Your task to perform on an android device: Go to location settings Image 0: 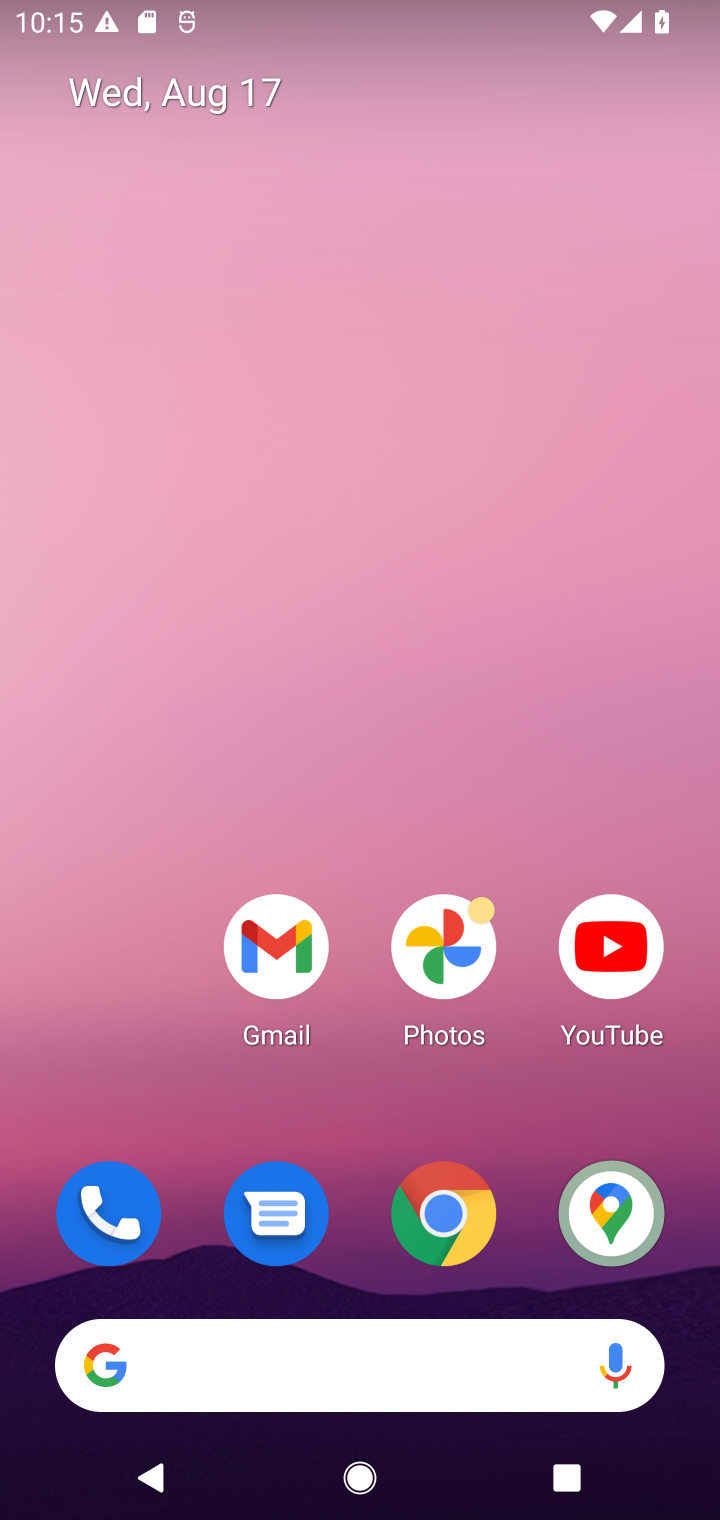
Step 0: drag from (501, 1004) to (326, 11)
Your task to perform on an android device: Go to location settings Image 1: 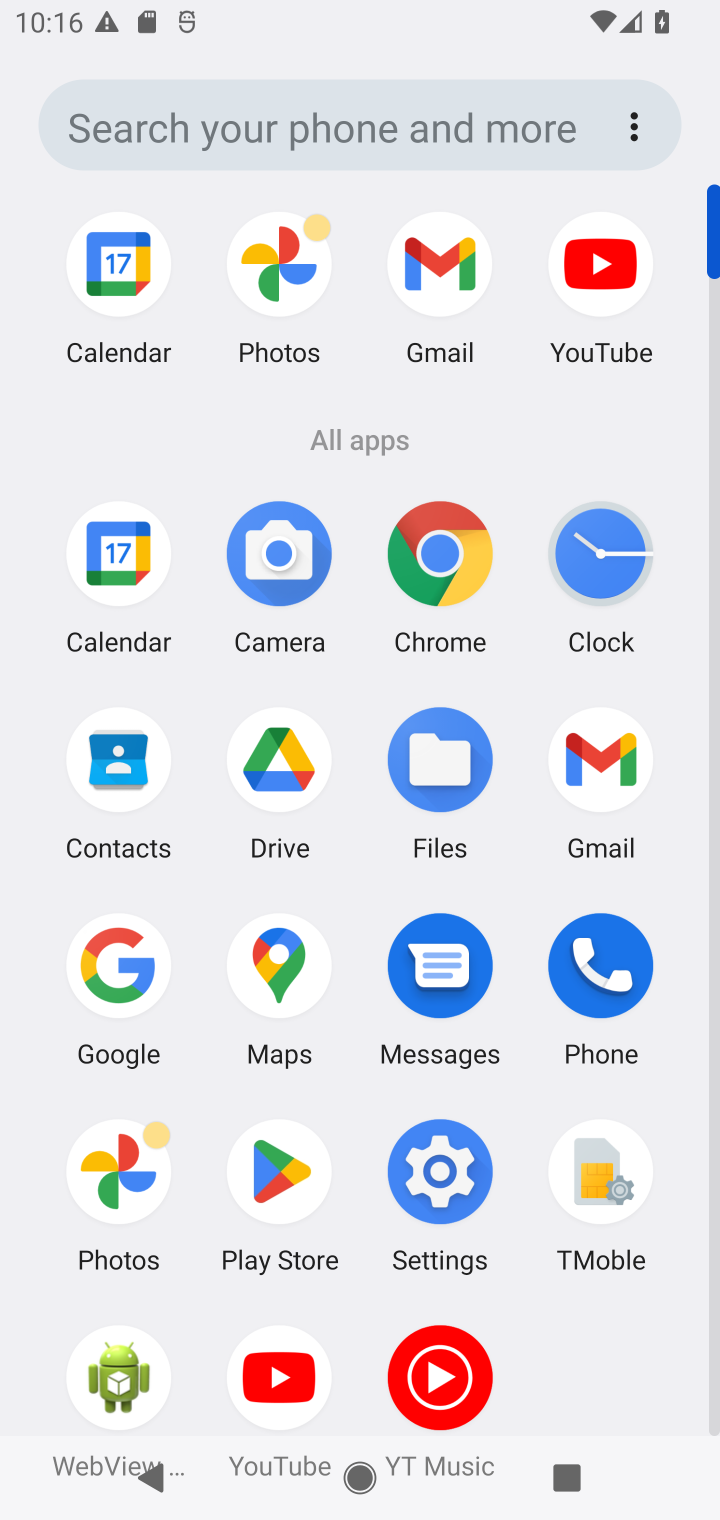
Step 1: click (402, 1150)
Your task to perform on an android device: Go to location settings Image 2: 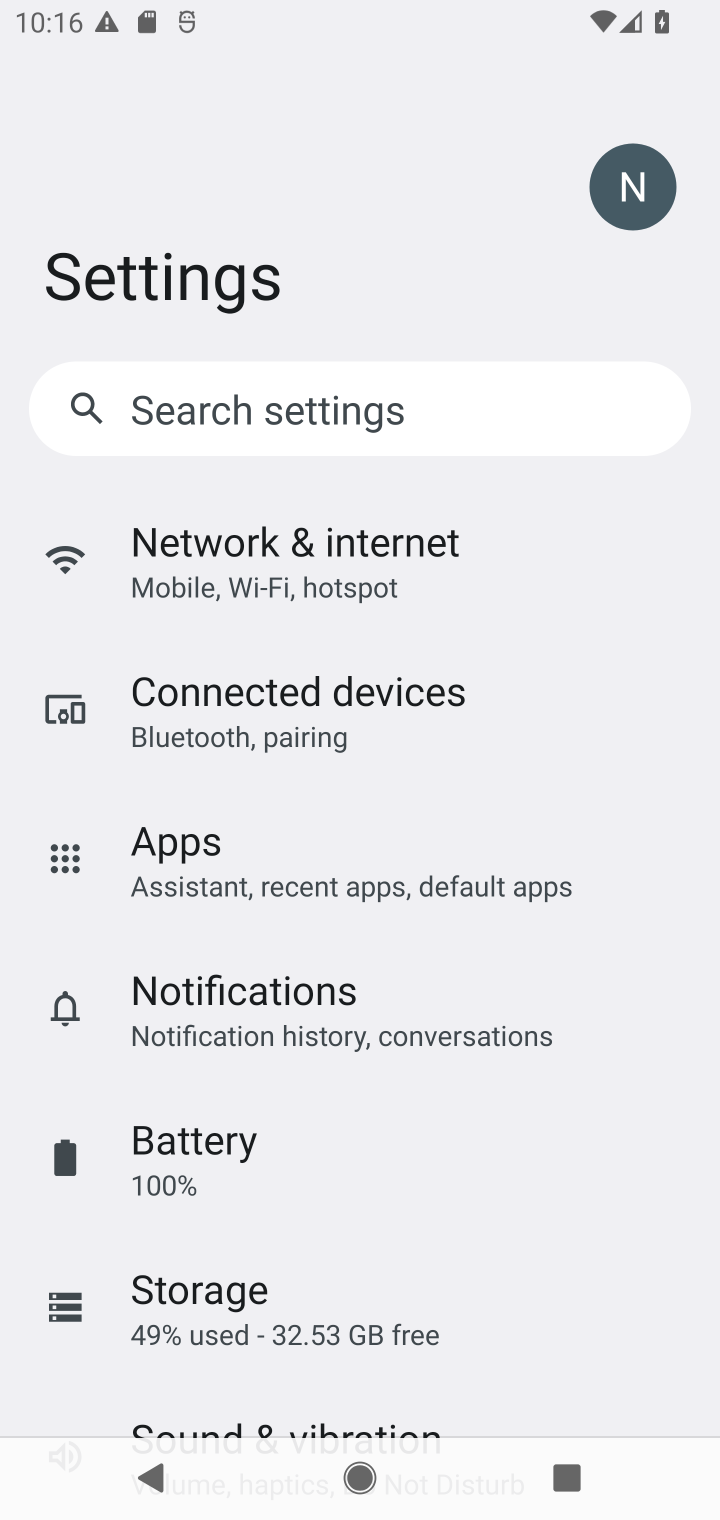
Step 2: drag from (284, 1269) to (219, 183)
Your task to perform on an android device: Go to location settings Image 3: 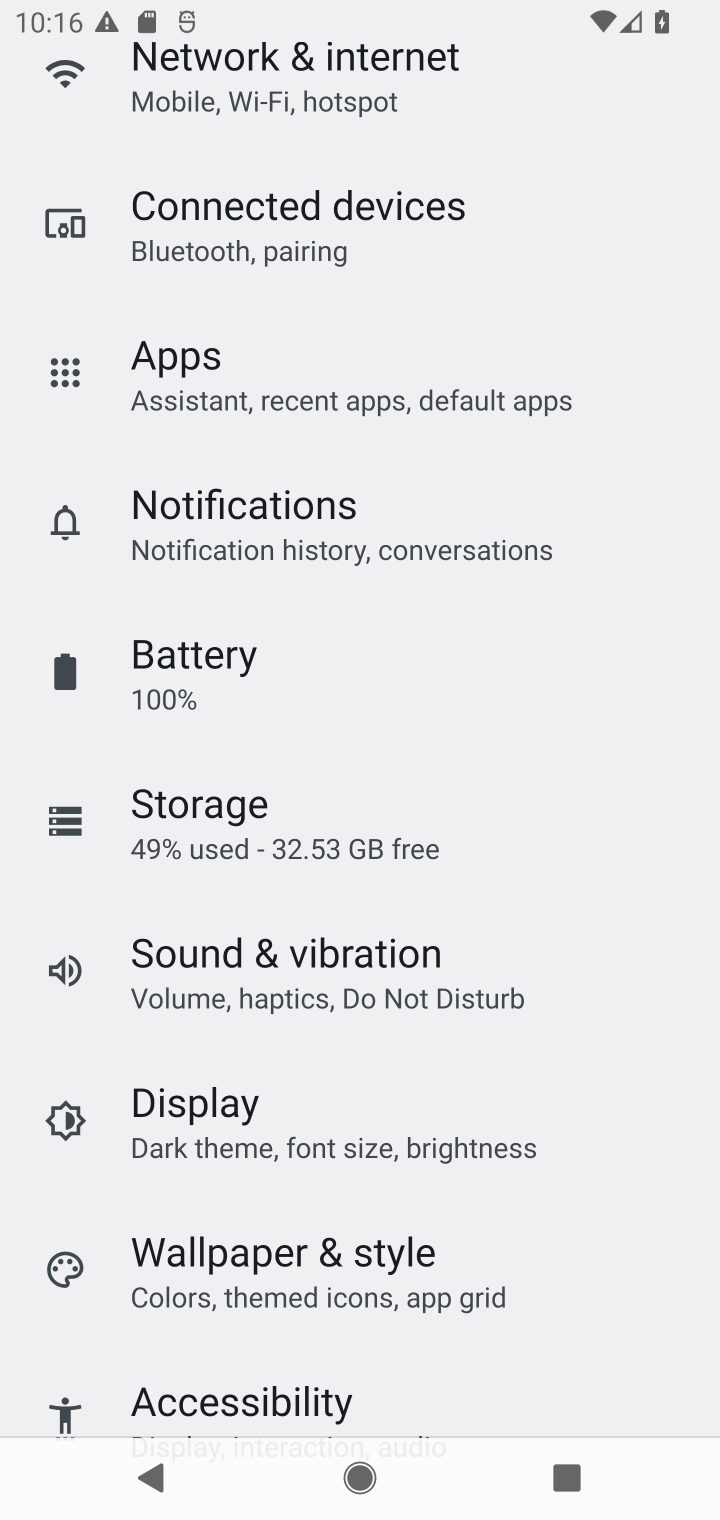
Step 3: drag from (211, 1258) to (243, 137)
Your task to perform on an android device: Go to location settings Image 4: 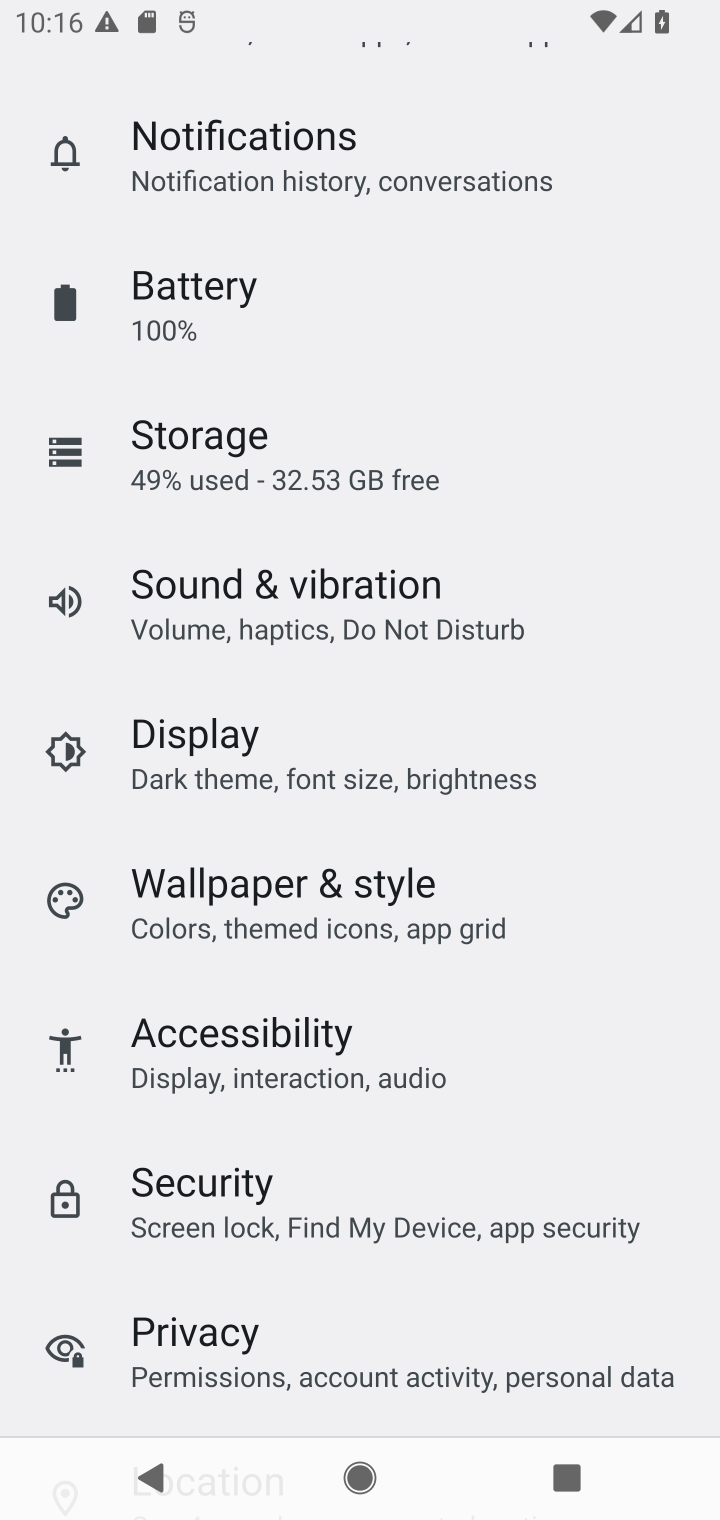
Step 4: drag from (309, 597) to (198, 39)
Your task to perform on an android device: Go to location settings Image 5: 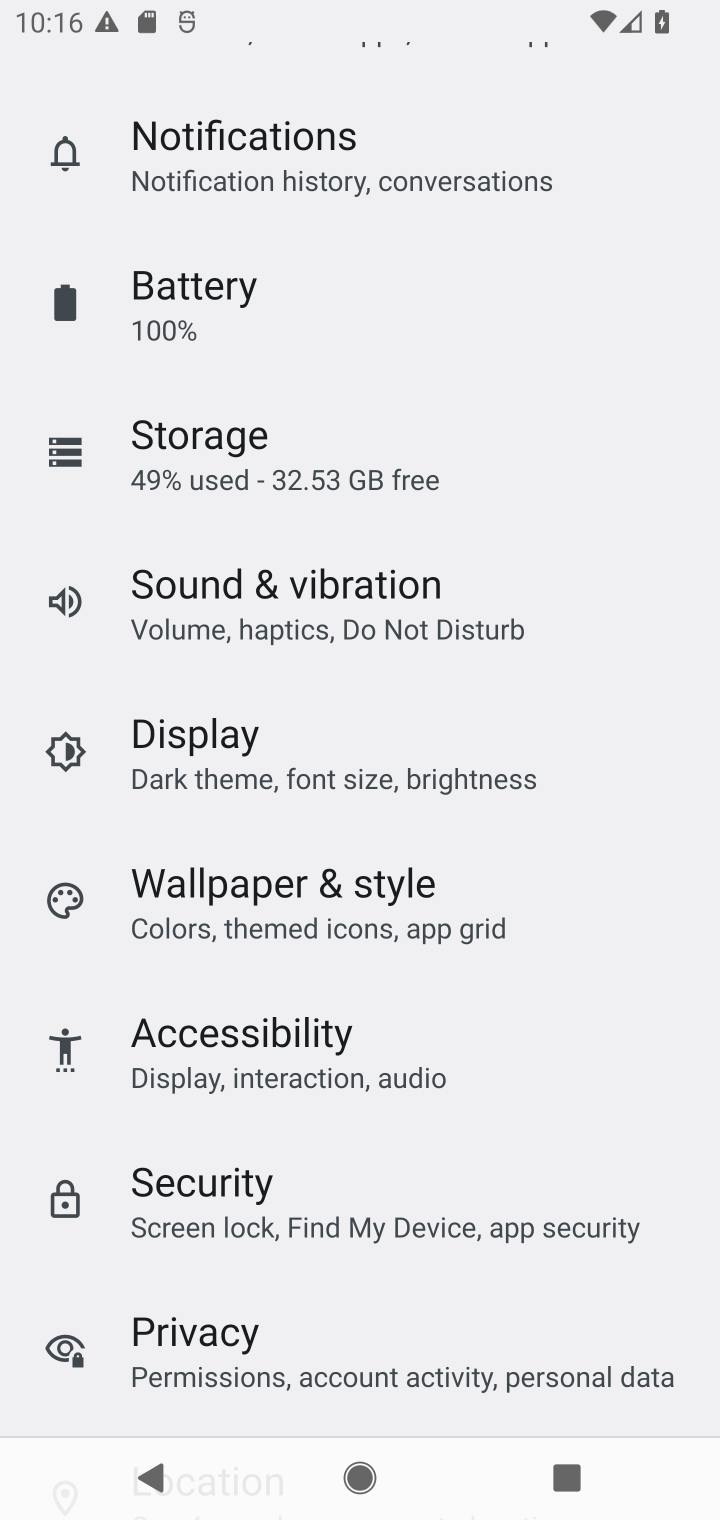
Step 5: drag from (196, 1290) to (268, 0)
Your task to perform on an android device: Go to location settings Image 6: 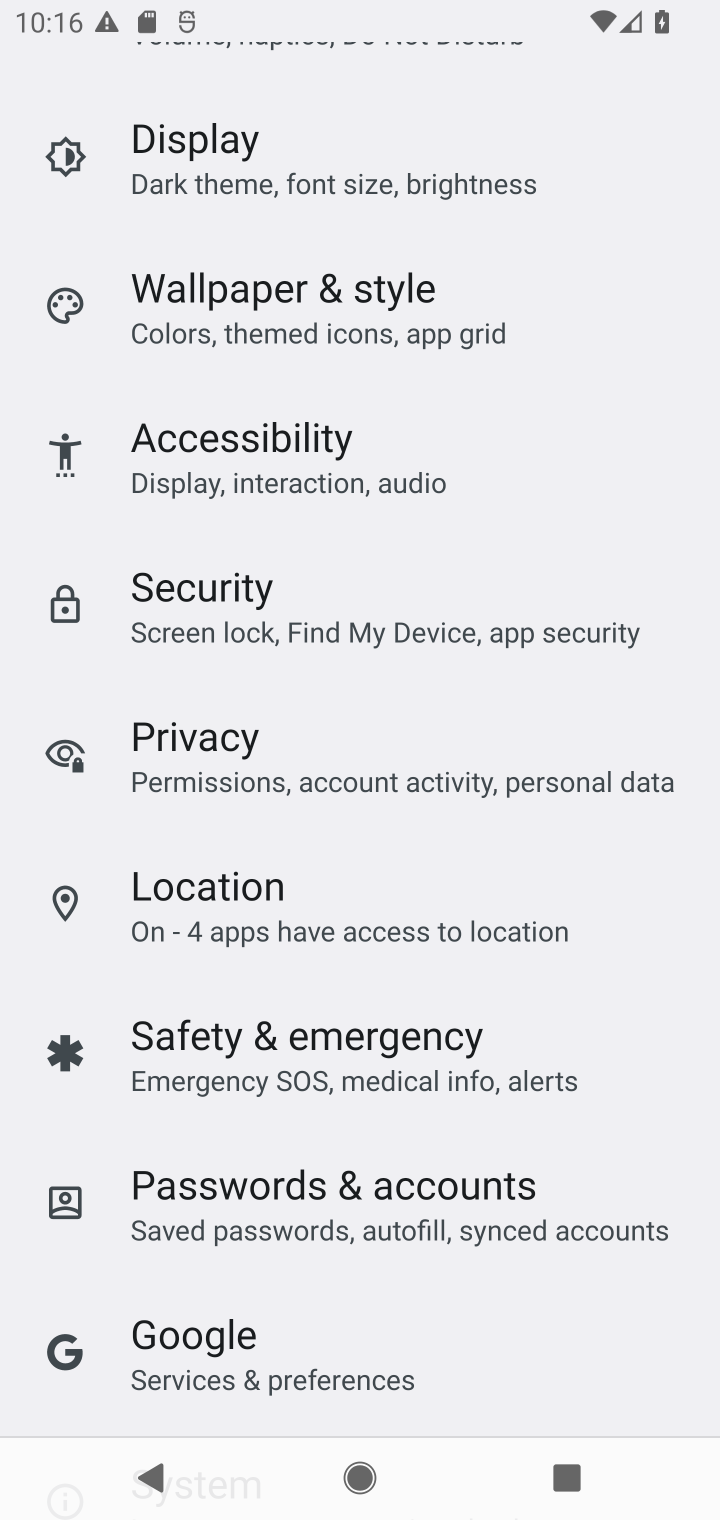
Step 6: click (348, 907)
Your task to perform on an android device: Go to location settings Image 7: 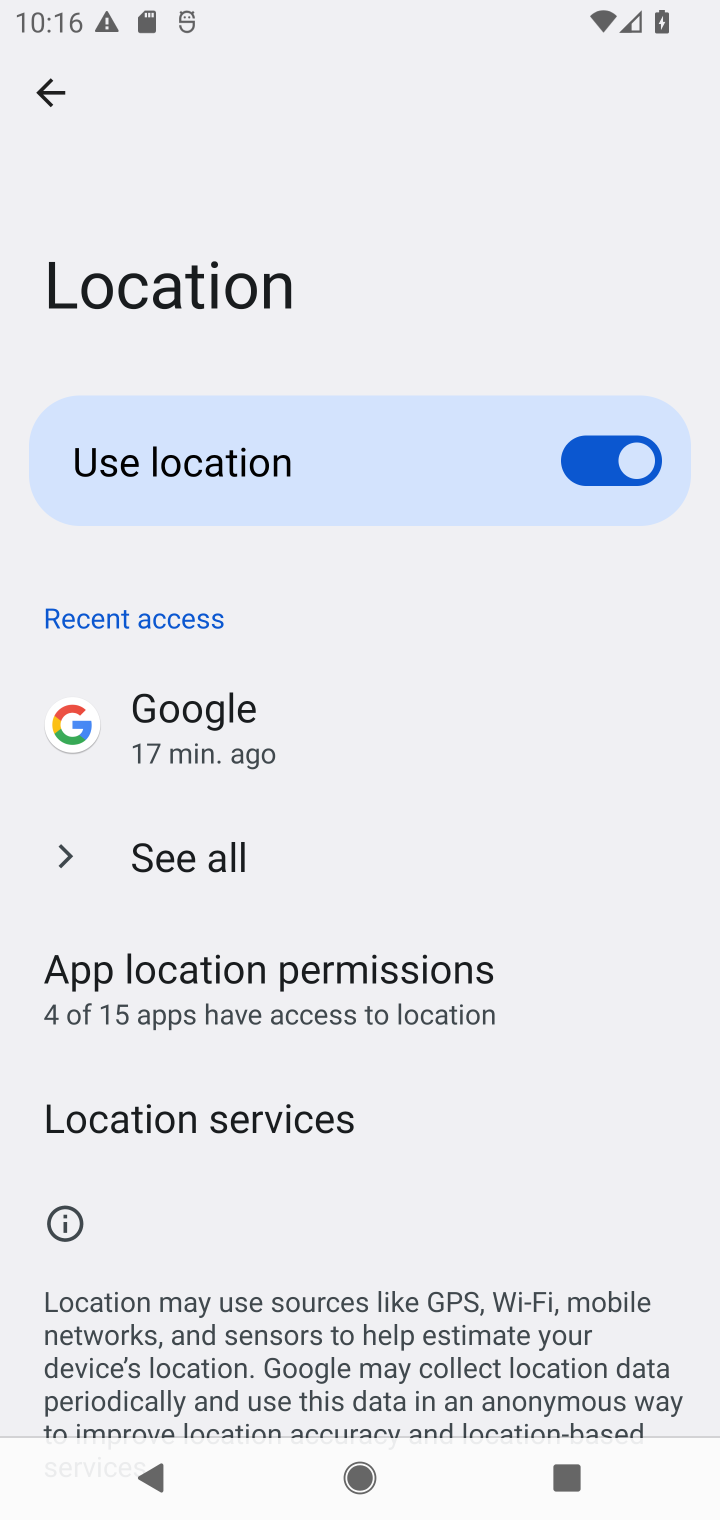
Step 7: task complete